Your task to perform on an android device: change notification settings in the gmail app Image 0: 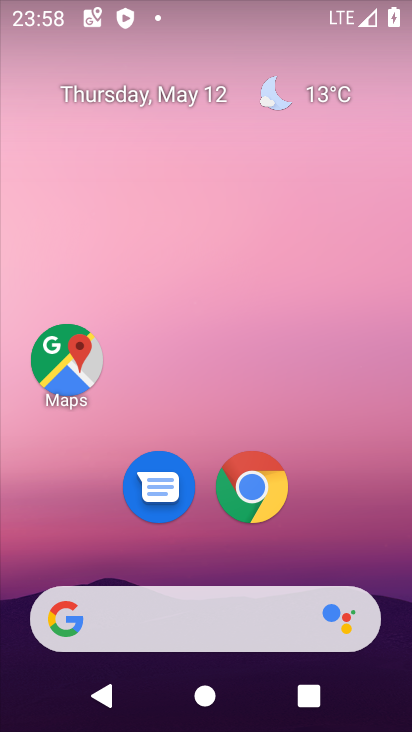
Step 0: drag from (232, 556) to (402, 335)
Your task to perform on an android device: change notification settings in the gmail app Image 1: 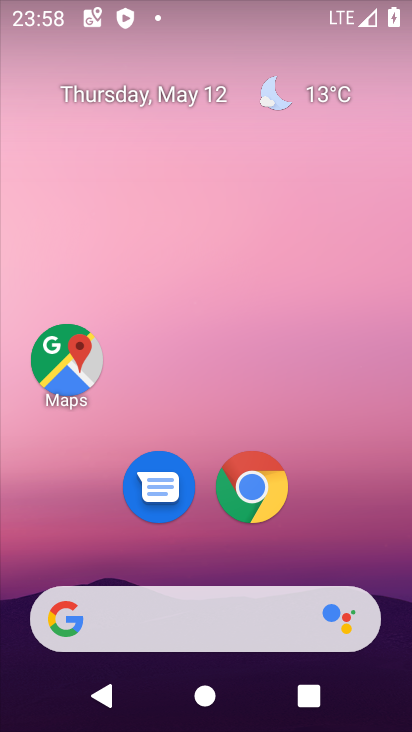
Step 1: click (264, 194)
Your task to perform on an android device: change notification settings in the gmail app Image 2: 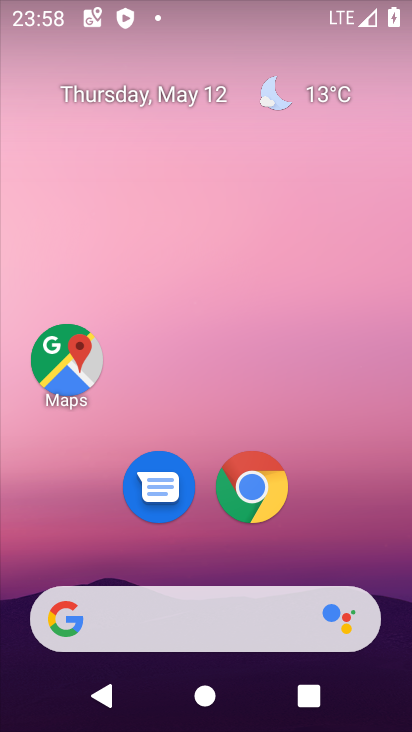
Step 2: drag from (203, 560) to (250, 4)
Your task to perform on an android device: change notification settings in the gmail app Image 3: 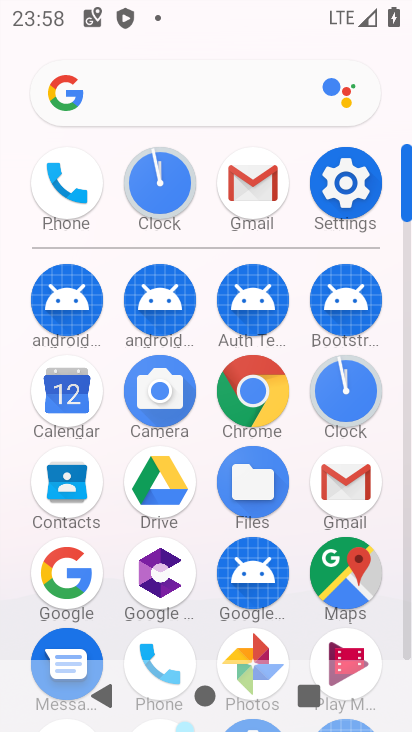
Step 3: click (261, 161)
Your task to perform on an android device: change notification settings in the gmail app Image 4: 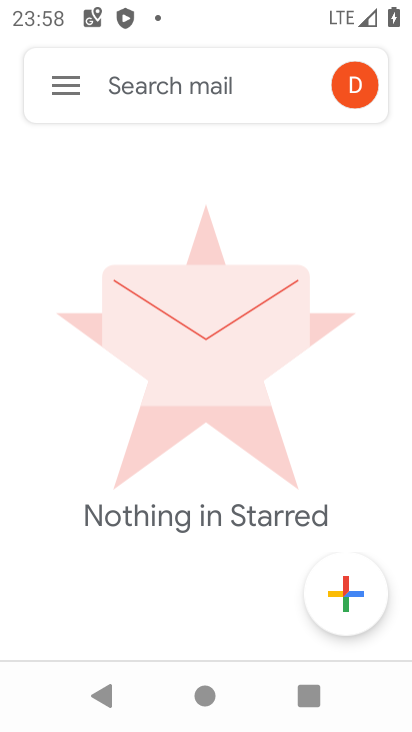
Step 4: click (58, 84)
Your task to perform on an android device: change notification settings in the gmail app Image 5: 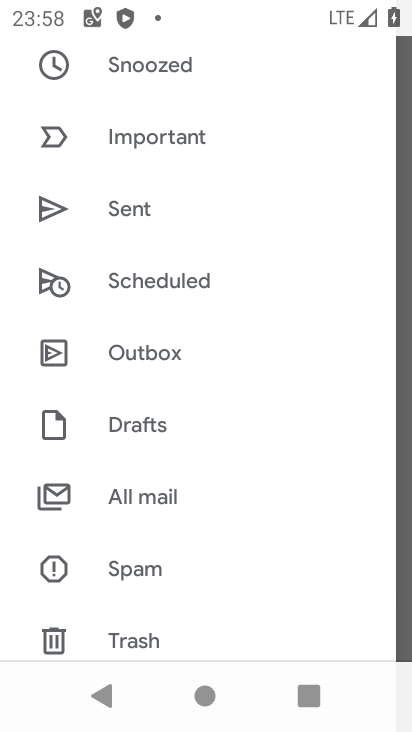
Step 5: drag from (144, 629) to (234, 30)
Your task to perform on an android device: change notification settings in the gmail app Image 6: 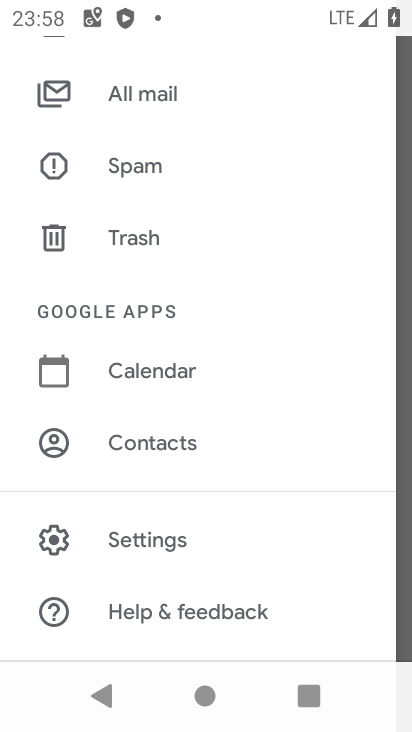
Step 6: click (252, 529)
Your task to perform on an android device: change notification settings in the gmail app Image 7: 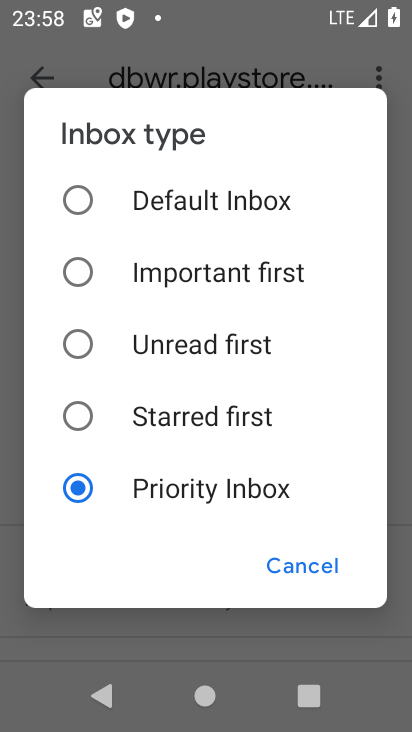
Step 7: click (331, 567)
Your task to perform on an android device: change notification settings in the gmail app Image 8: 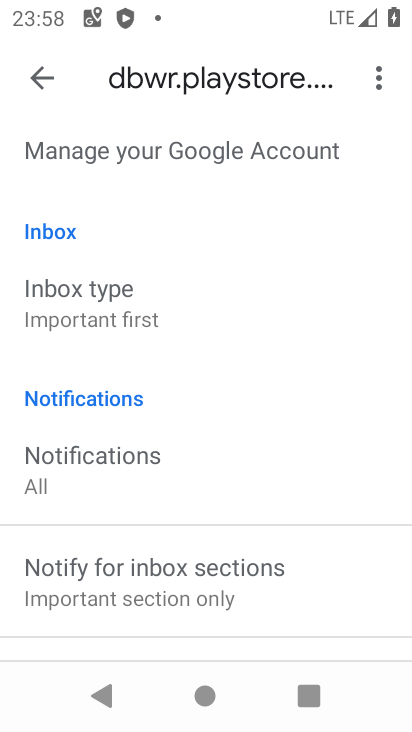
Step 8: click (175, 497)
Your task to perform on an android device: change notification settings in the gmail app Image 9: 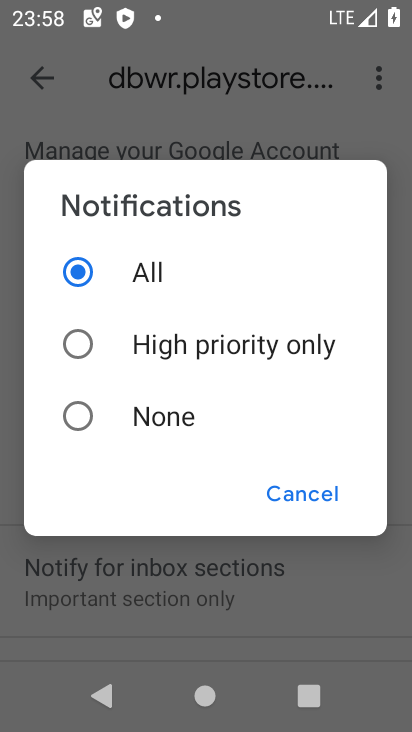
Step 9: click (87, 358)
Your task to perform on an android device: change notification settings in the gmail app Image 10: 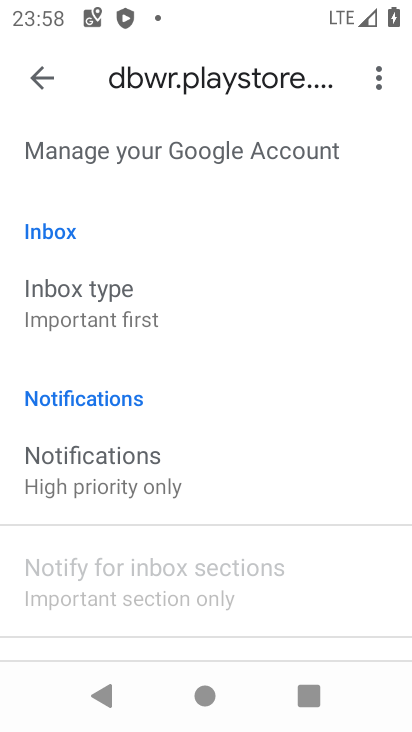
Step 10: task complete